Your task to perform on an android device: turn vacation reply on in the gmail app Image 0: 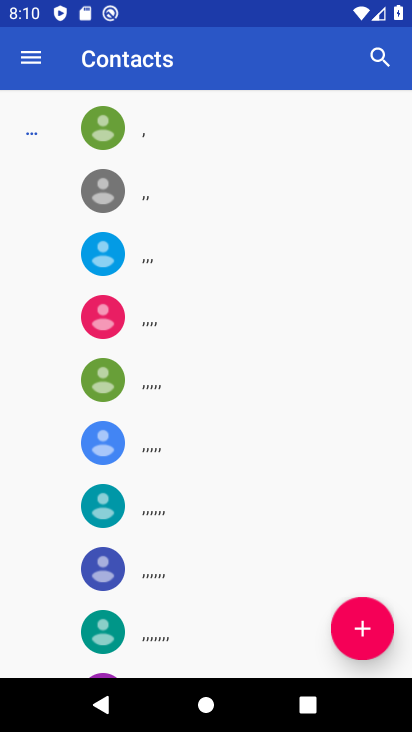
Step 0: press home button
Your task to perform on an android device: turn vacation reply on in the gmail app Image 1: 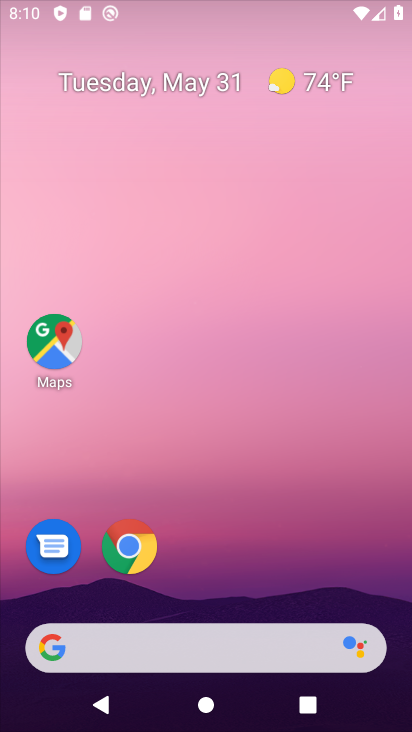
Step 1: drag from (232, 580) to (331, 32)
Your task to perform on an android device: turn vacation reply on in the gmail app Image 2: 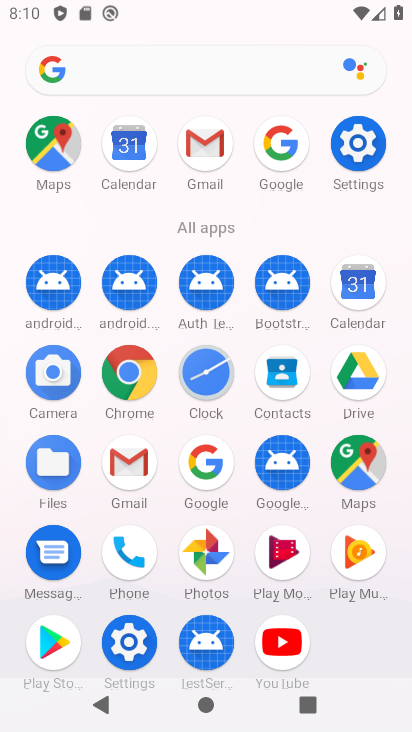
Step 2: click (213, 145)
Your task to perform on an android device: turn vacation reply on in the gmail app Image 3: 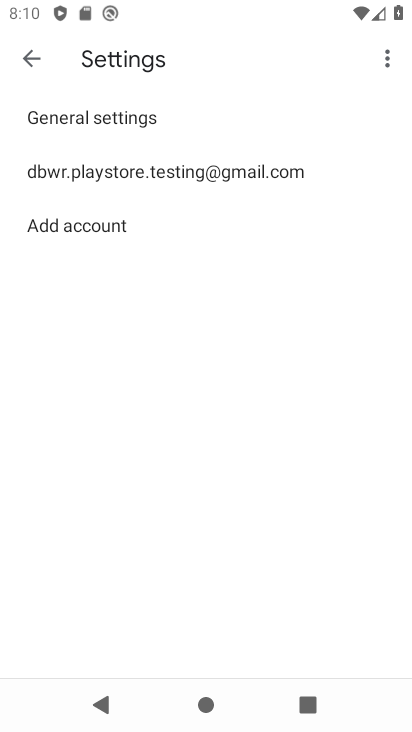
Step 3: click (100, 174)
Your task to perform on an android device: turn vacation reply on in the gmail app Image 4: 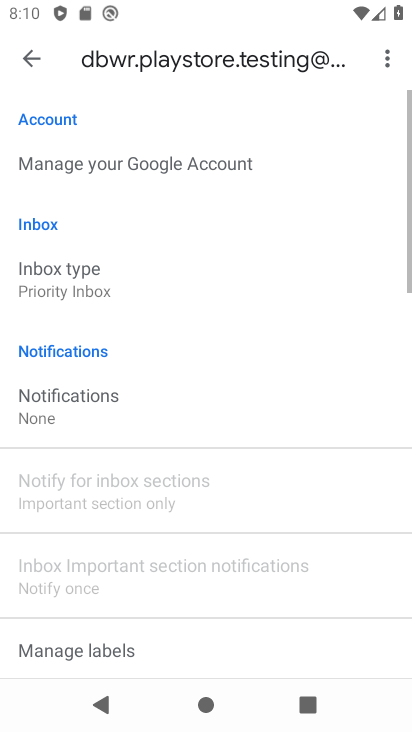
Step 4: drag from (104, 619) to (124, 166)
Your task to perform on an android device: turn vacation reply on in the gmail app Image 5: 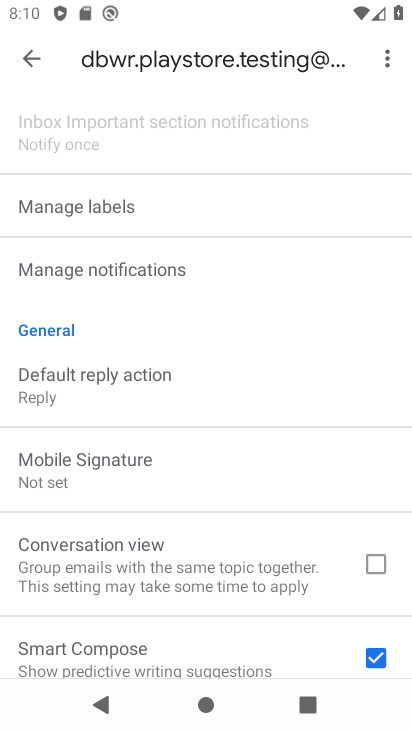
Step 5: drag from (142, 581) to (197, 154)
Your task to perform on an android device: turn vacation reply on in the gmail app Image 6: 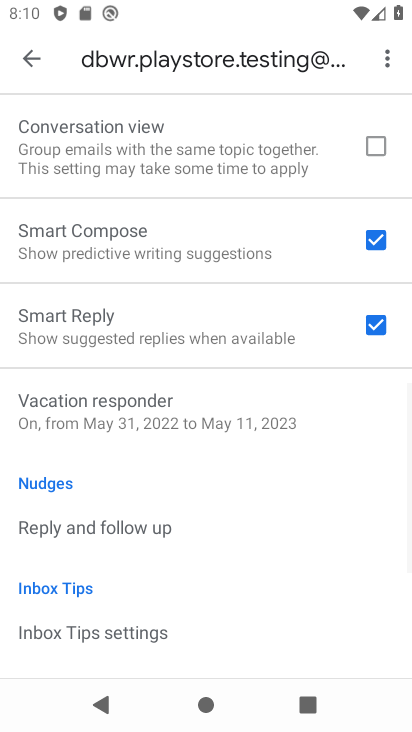
Step 6: click (100, 411)
Your task to perform on an android device: turn vacation reply on in the gmail app Image 7: 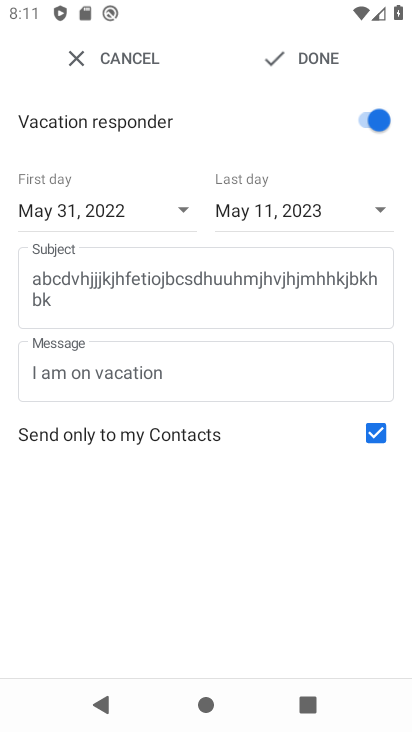
Step 7: task complete